Your task to perform on an android device: turn notification dots off Image 0: 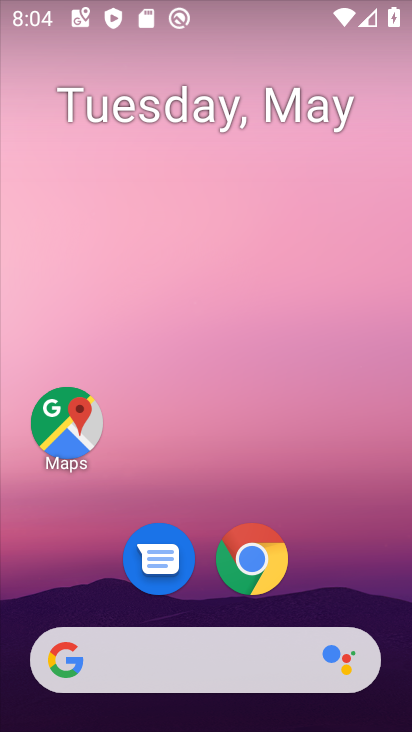
Step 0: drag from (375, 547) to (374, 76)
Your task to perform on an android device: turn notification dots off Image 1: 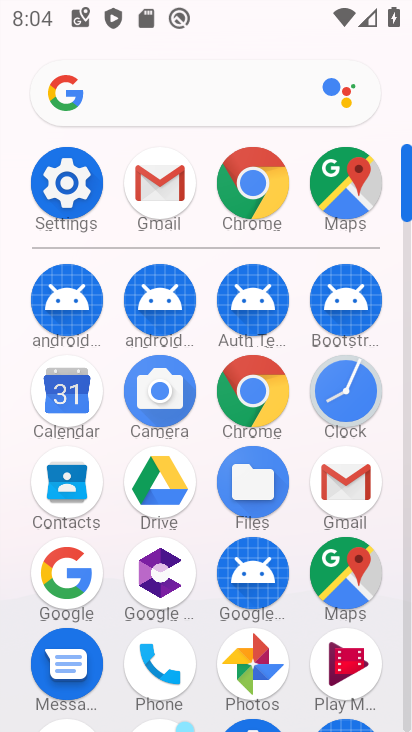
Step 1: click (39, 202)
Your task to perform on an android device: turn notification dots off Image 2: 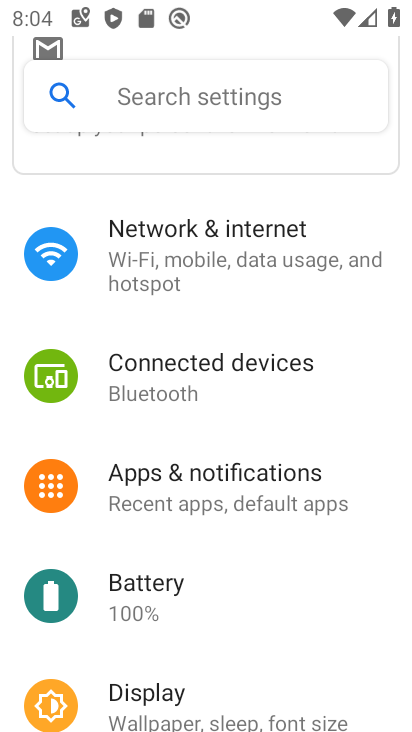
Step 2: click (274, 507)
Your task to perform on an android device: turn notification dots off Image 3: 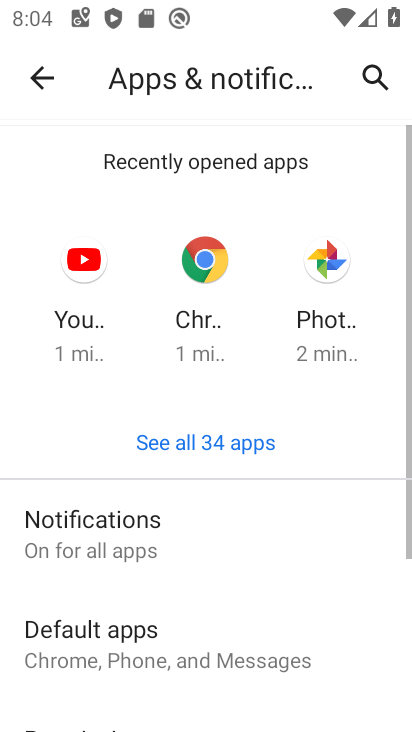
Step 3: click (122, 537)
Your task to perform on an android device: turn notification dots off Image 4: 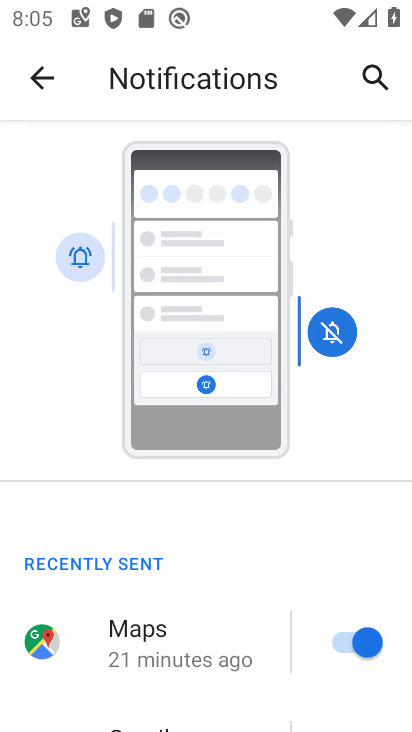
Step 4: drag from (209, 661) to (236, 248)
Your task to perform on an android device: turn notification dots off Image 5: 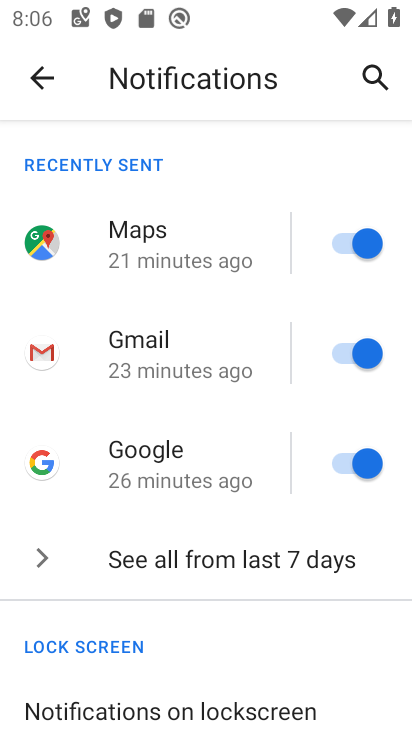
Step 5: drag from (211, 574) to (187, 177)
Your task to perform on an android device: turn notification dots off Image 6: 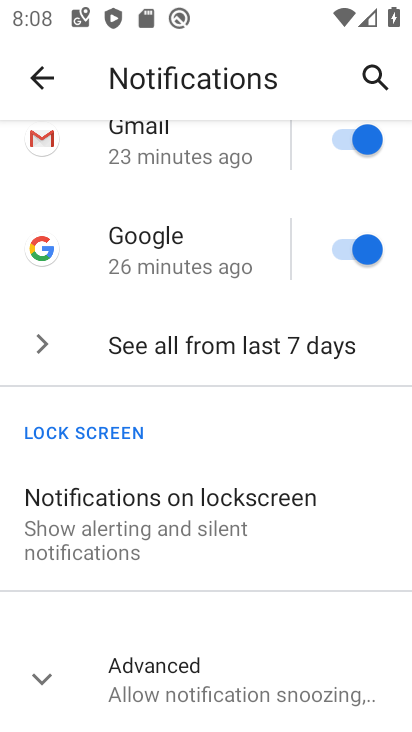
Step 6: drag from (251, 503) to (205, 184)
Your task to perform on an android device: turn notification dots off Image 7: 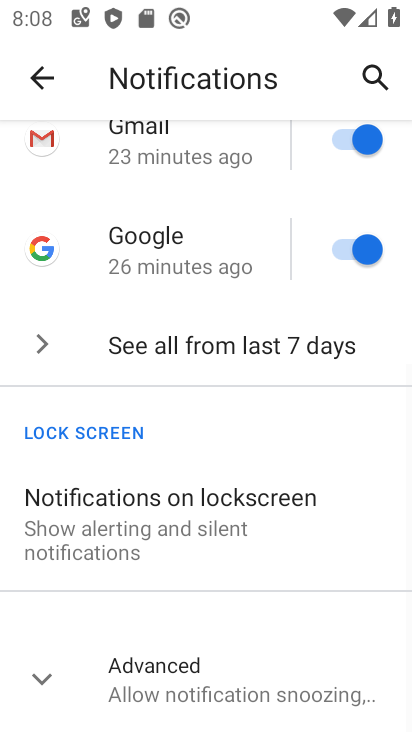
Step 7: click (183, 657)
Your task to perform on an android device: turn notification dots off Image 8: 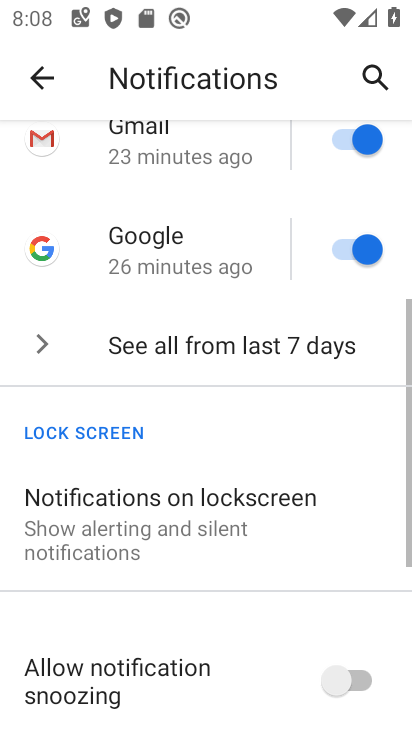
Step 8: drag from (219, 686) to (220, 394)
Your task to perform on an android device: turn notification dots off Image 9: 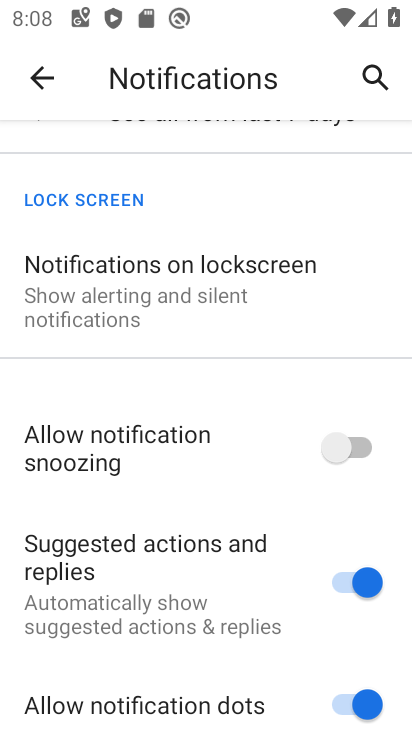
Step 9: drag from (272, 609) to (248, 363)
Your task to perform on an android device: turn notification dots off Image 10: 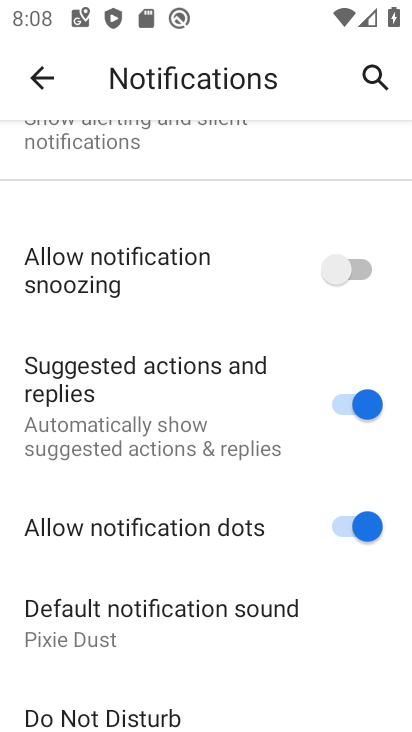
Step 10: click (348, 530)
Your task to perform on an android device: turn notification dots off Image 11: 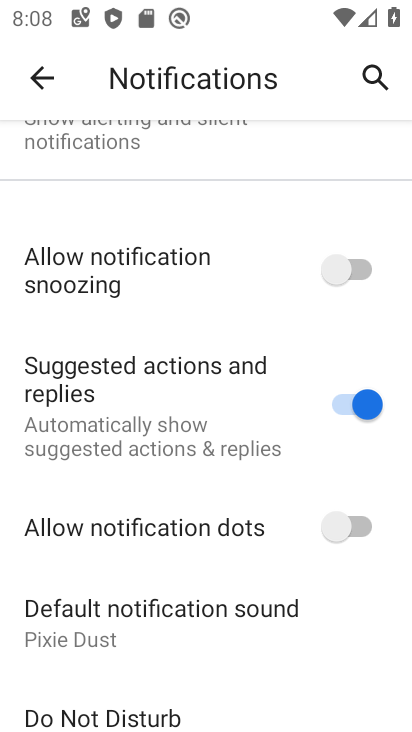
Step 11: task complete